Your task to perform on an android device: Open maps Image 0: 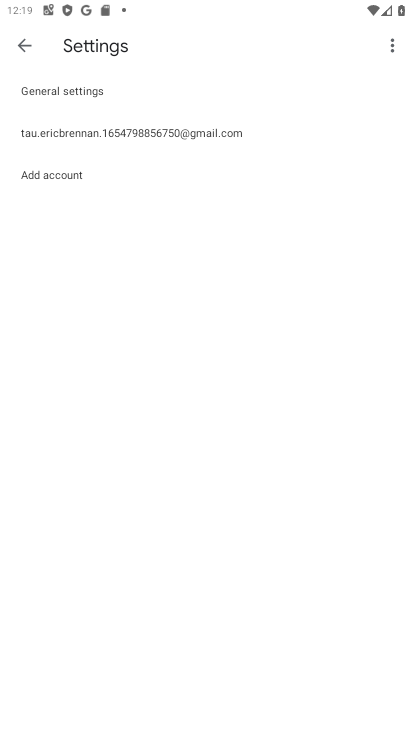
Step 0: press home button
Your task to perform on an android device: Open maps Image 1: 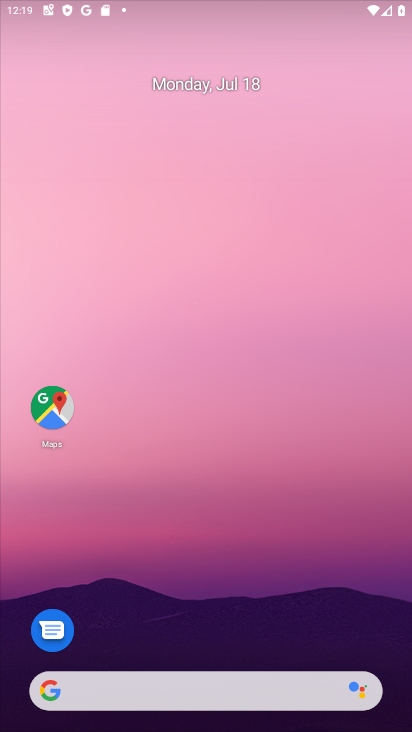
Step 1: drag from (257, 624) to (338, 28)
Your task to perform on an android device: Open maps Image 2: 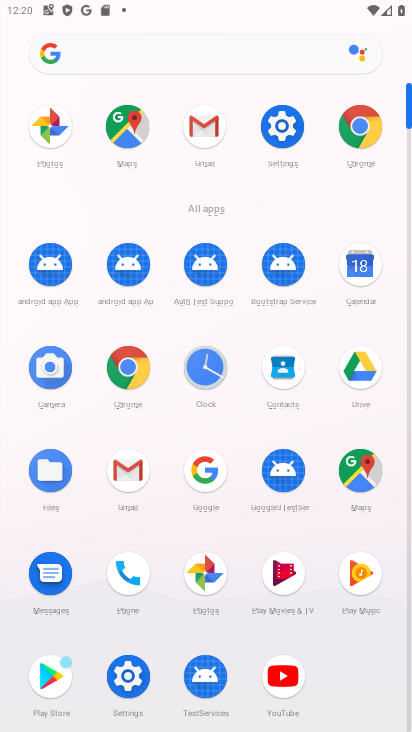
Step 2: click (360, 467)
Your task to perform on an android device: Open maps Image 3: 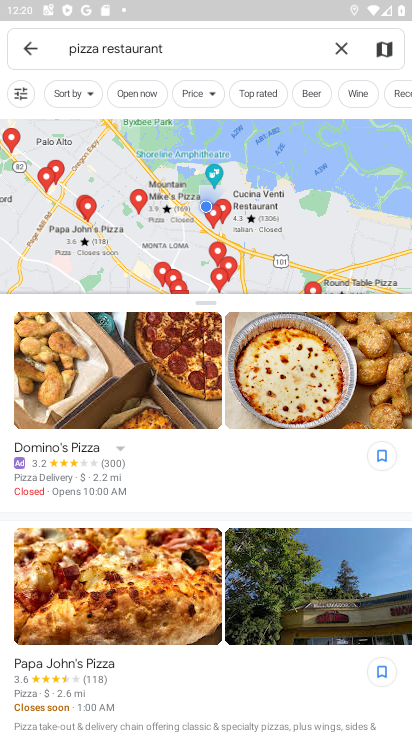
Step 3: task complete